Your task to perform on an android device: manage bookmarks in the chrome app Image 0: 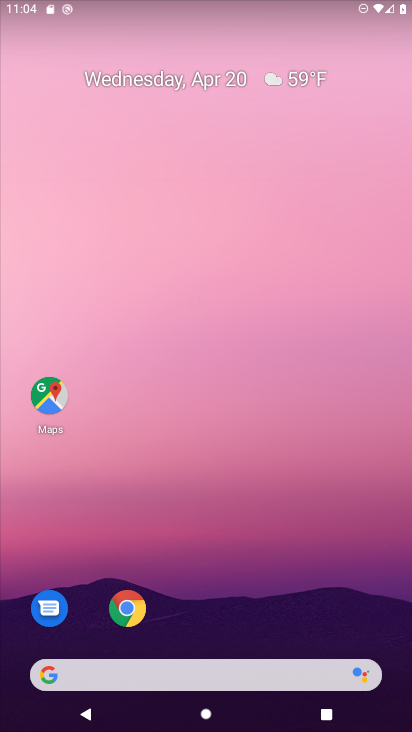
Step 0: click (135, 612)
Your task to perform on an android device: manage bookmarks in the chrome app Image 1: 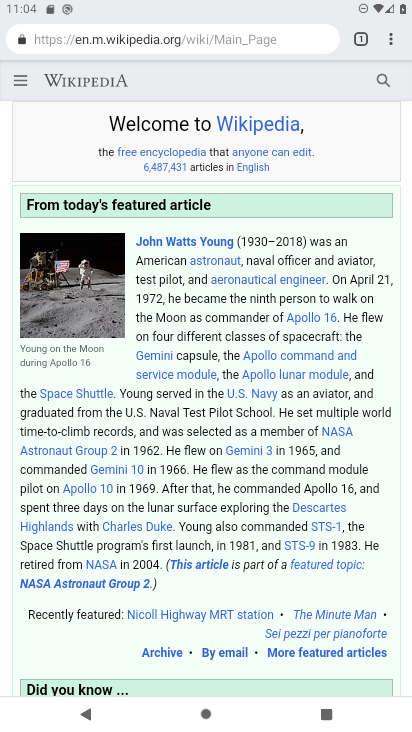
Step 1: task complete